Your task to perform on an android device: Open Maps and search for coffee Image 0: 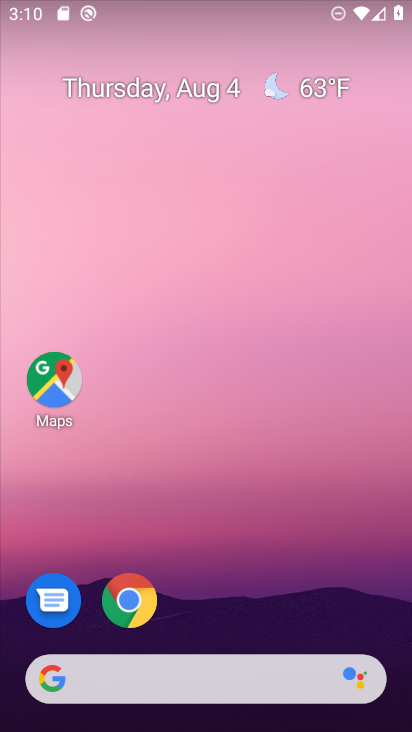
Step 0: drag from (181, 622) to (304, 13)
Your task to perform on an android device: Open Maps and search for coffee Image 1: 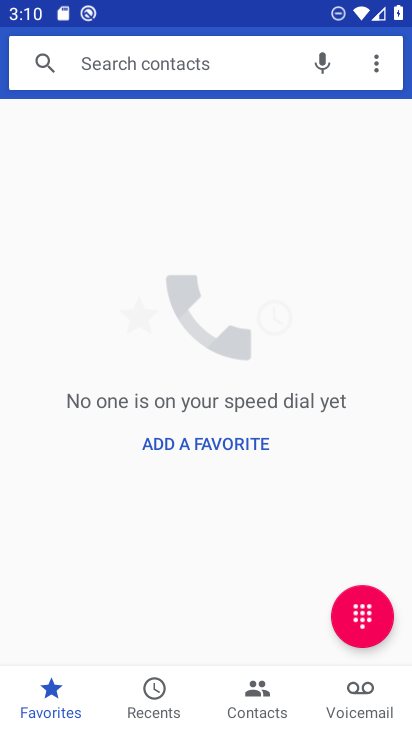
Step 1: press home button
Your task to perform on an android device: Open Maps and search for coffee Image 2: 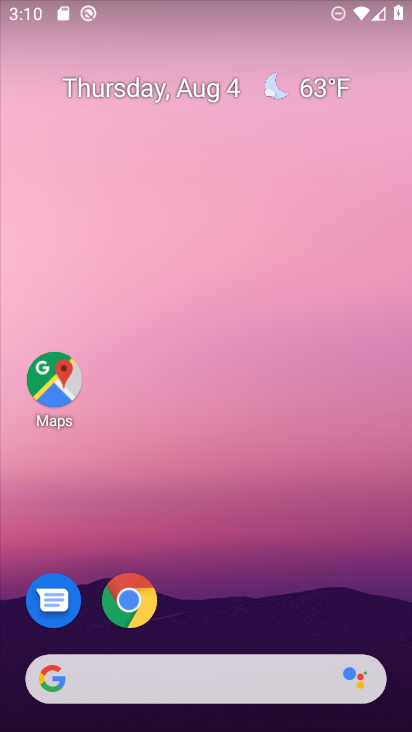
Step 2: click (37, 382)
Your task to perform on an android device: Open Maps and search for coffee Image 3: 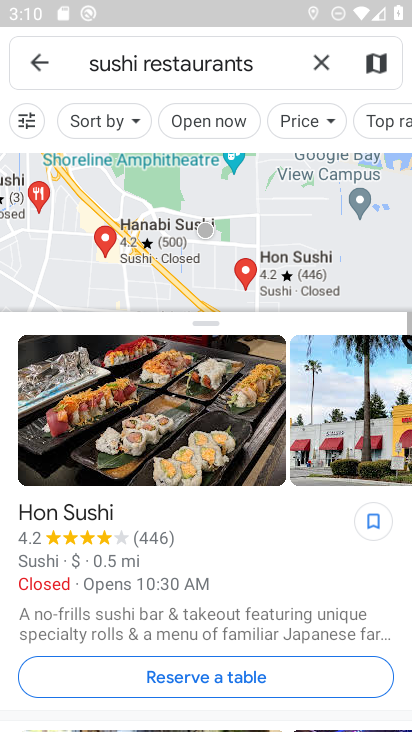
Step 3: click (324, 62)
Your task to perform on an android device: Open Maps and search for coffee Image 4: 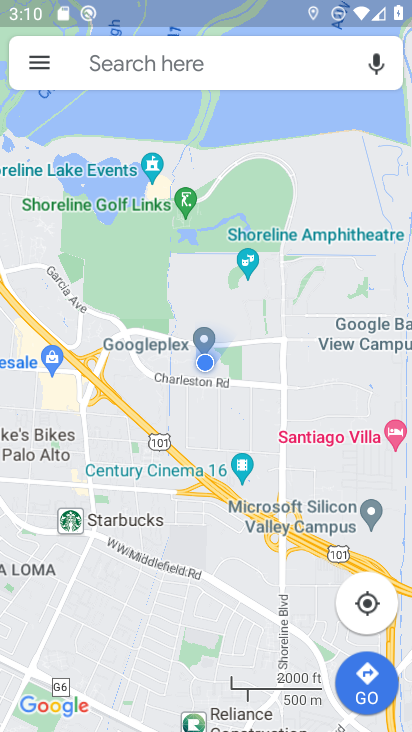
Step 4: click (125, 68)
Your task to perform on an android device: Open Maps and search for coffee Image 5: 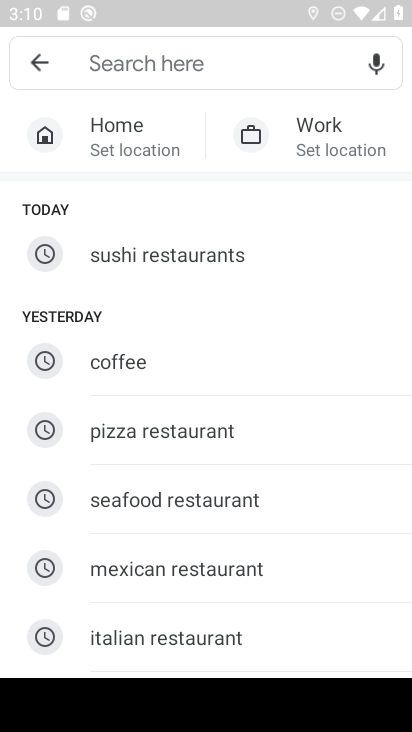
Step 5: click (149, 370)
Your task to perform on an android device: Open Maps and search for coffee Image 6: 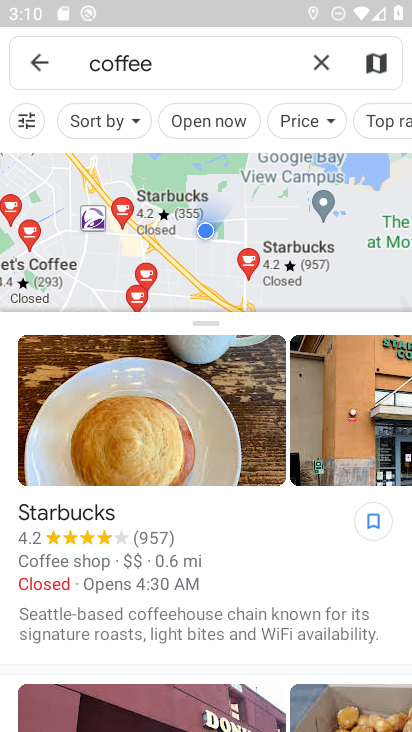
Step 6: task complete